Your task to perform on an android device: stop showing notifications on the lock screen Image 0: 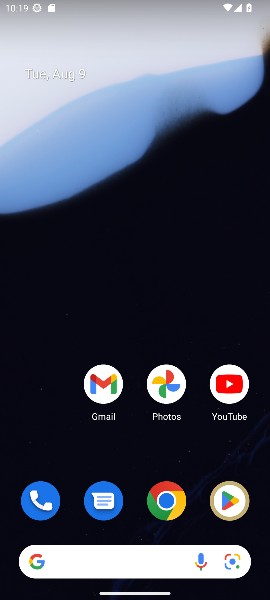
Step 0: drag from (141, 502) to (177, 170)
Your task to perform on an android device: stop showing notifications on the lock screen Image 1: 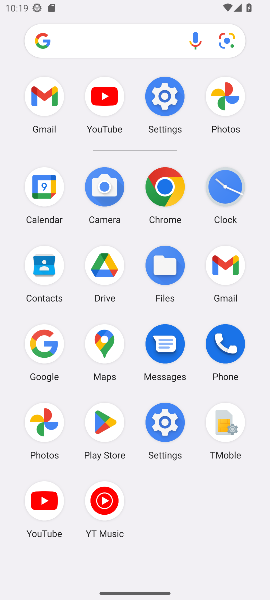
Step 1: click (166, 96)
Your task to perform on an android device: stop showing notifications on the lock screen Image 2: 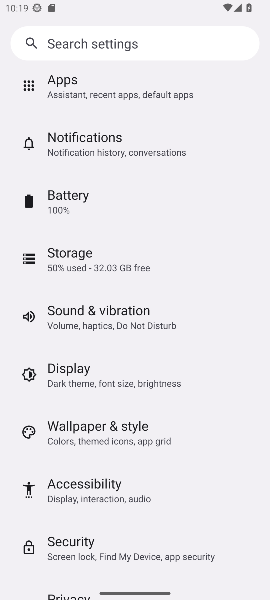
Step 2: click (110, 142)
Your task to perform on an android device: stop showing notifications on the lock screen Image 3: 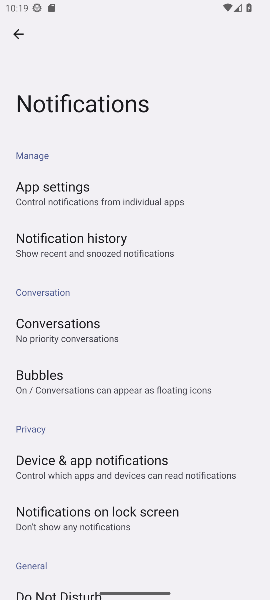
Step 3: click (109, 515)
Your task to perform on an android device: stop showing notifications on the lock screen Image 4: 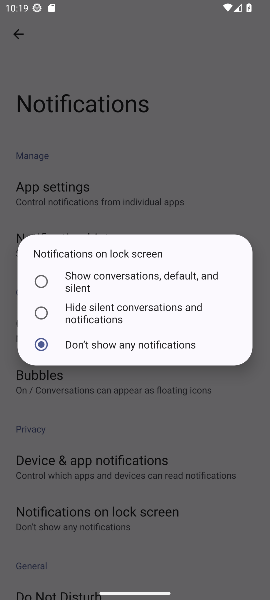
Step 4: click (42, 277)
Your task to perform on an android device: stop showing notifications on the lock screen Image 5: 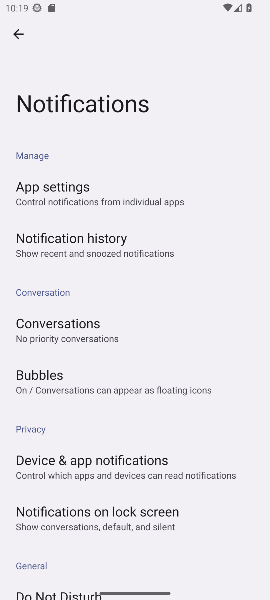
Step 5: task complete